Your task to perform on an android device: Open settings on Google Maps Image 0: 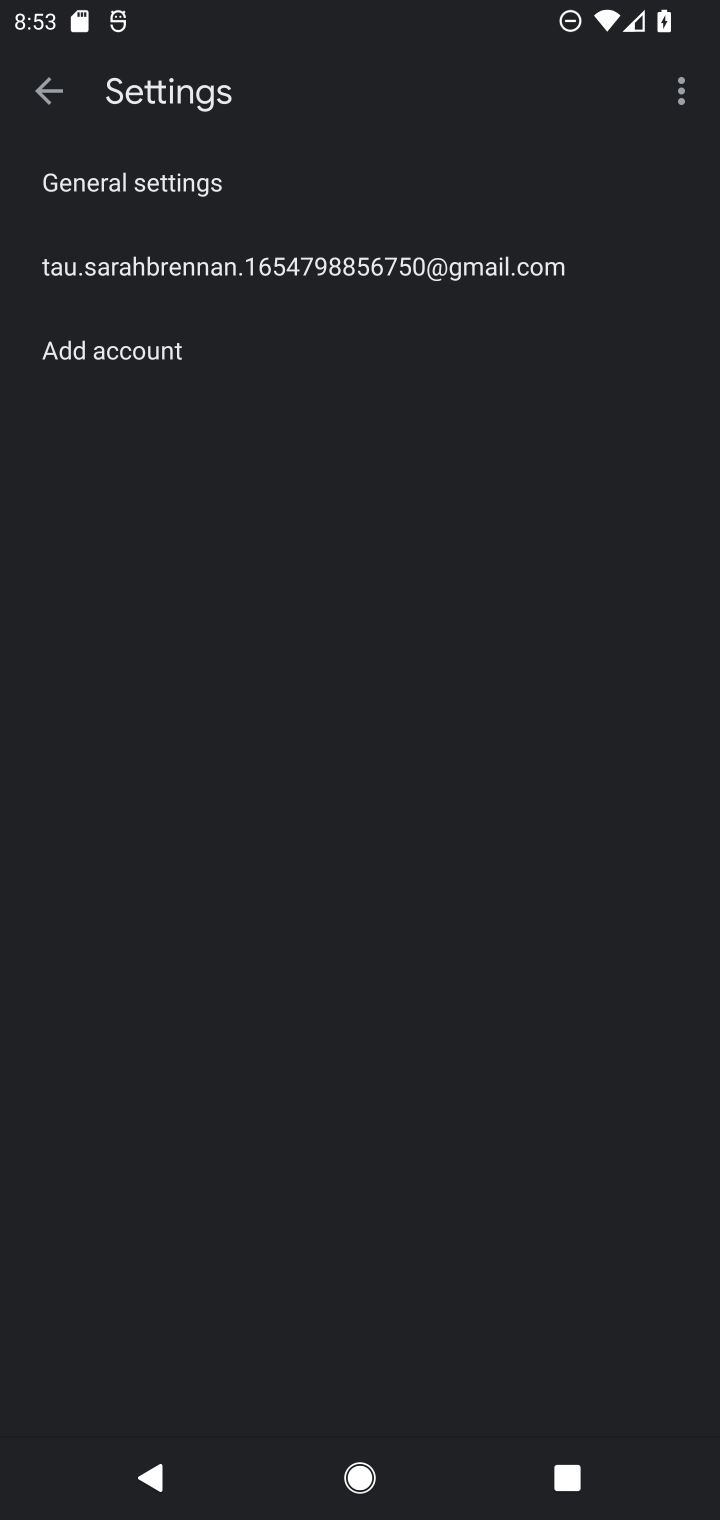
Step 0: press home button
Your task to perform on an android device: Open settings on Google Maps Image 1: 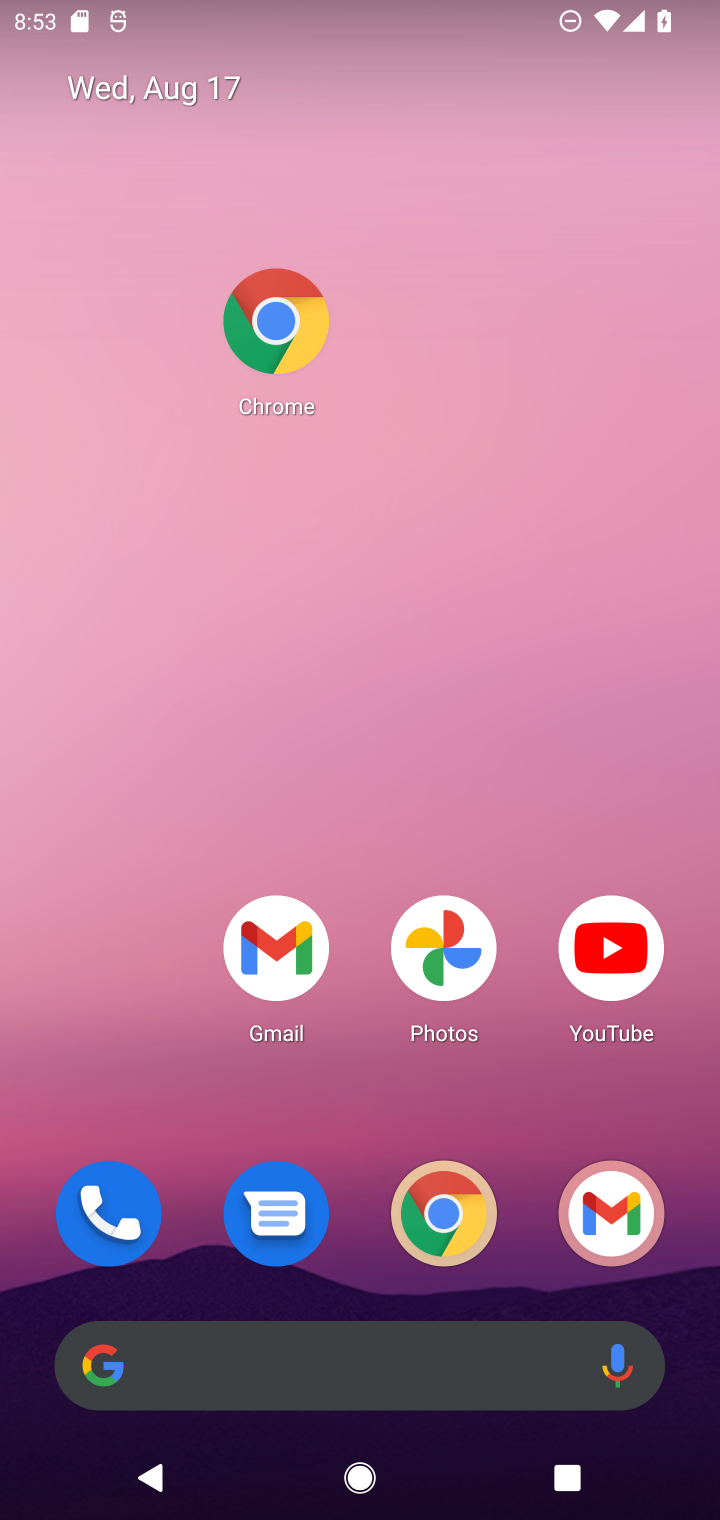
Step 1: drag from (378, 1295) to (385, 161)
Your task to perform on an android device: Open settings on Google Maps Image 2: 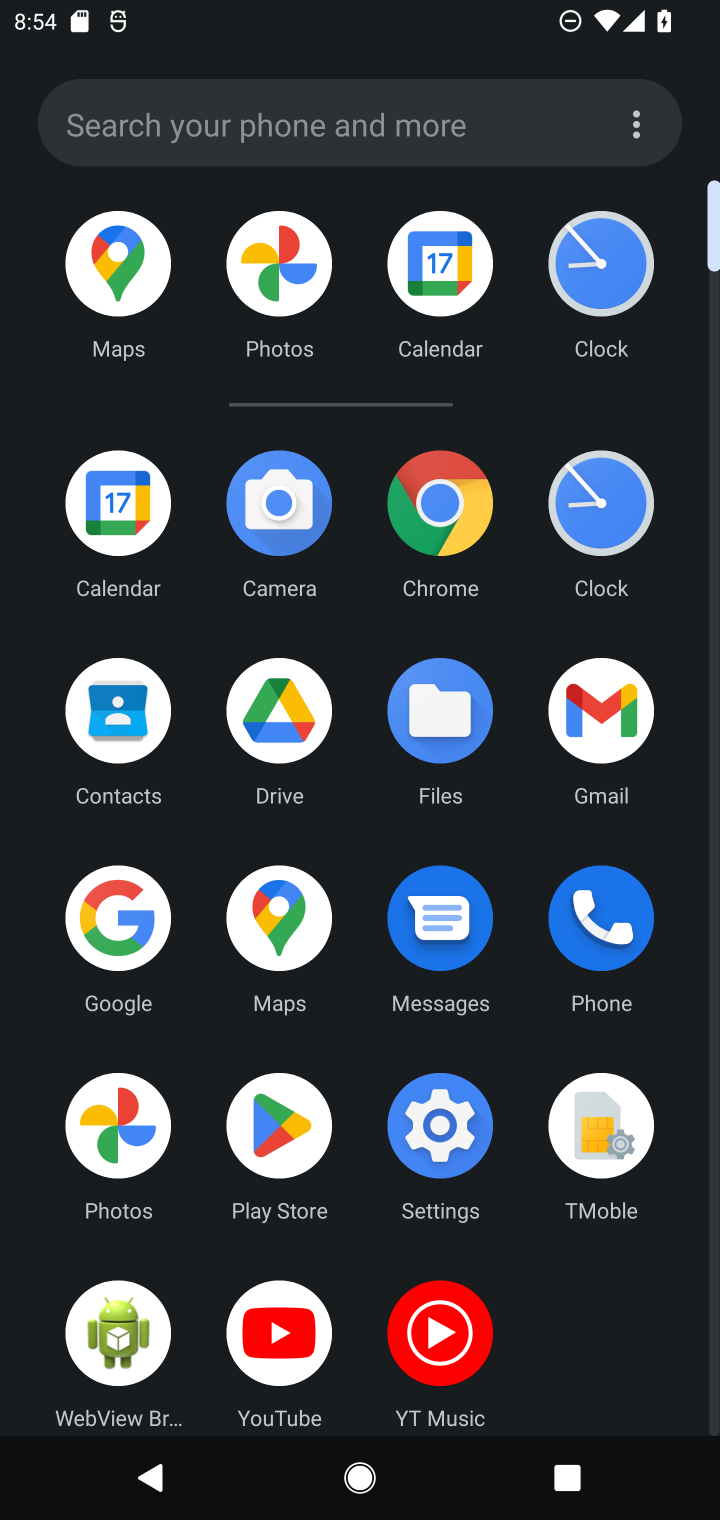
Step 2: click (158, 287)
Your task to perform on an android device: Open settings on Google Maps Image 3: 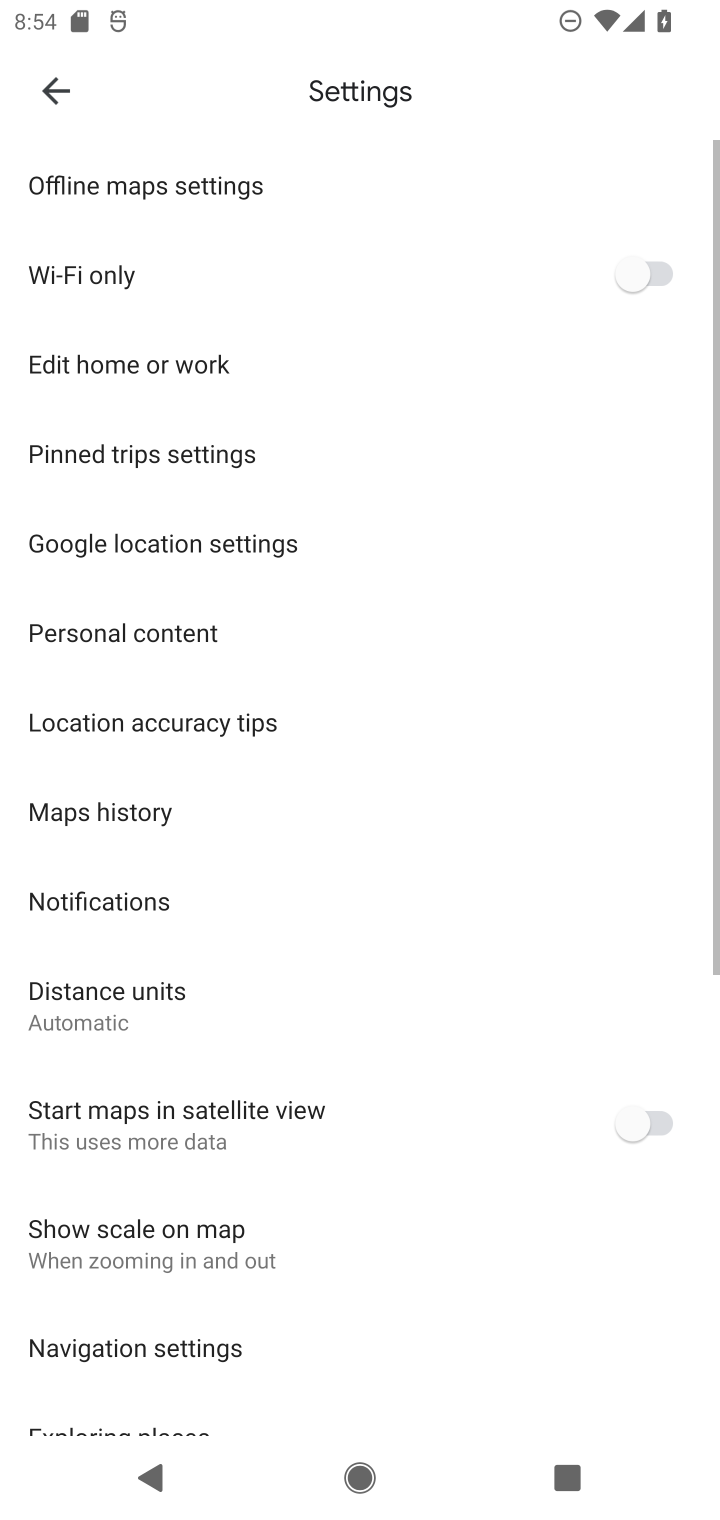
Step 3: task complete